Your task to perform on an android device: Open my contact list Image 0: 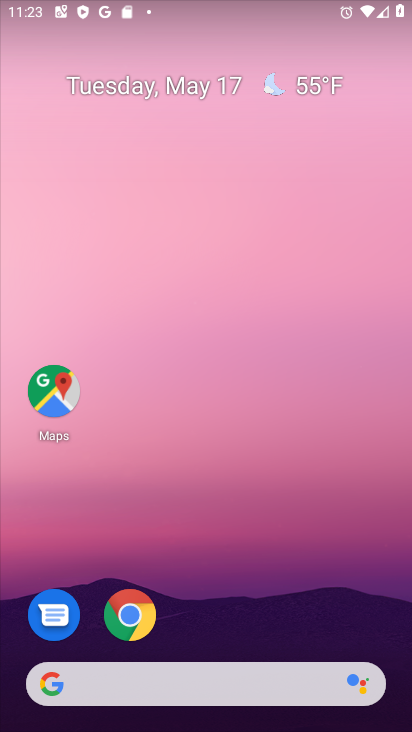
Step 0: drag from (229, 636) to (327, 72)
Your task to perform on an android device: Open my contact list Image 1: 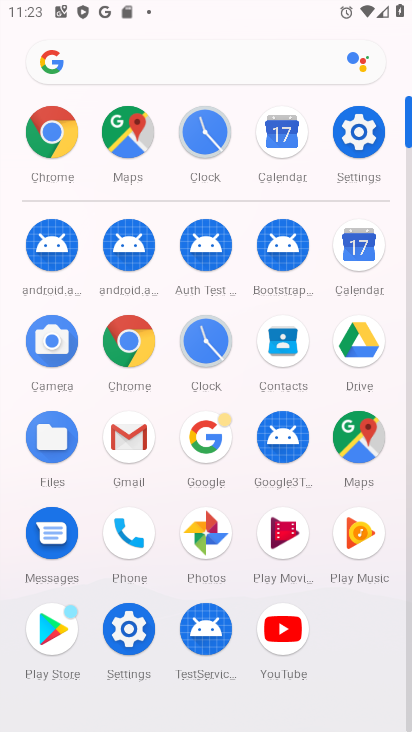
Step 1: click (284, 334)
Your task to perform on an android device: Open my contact list Image 2: 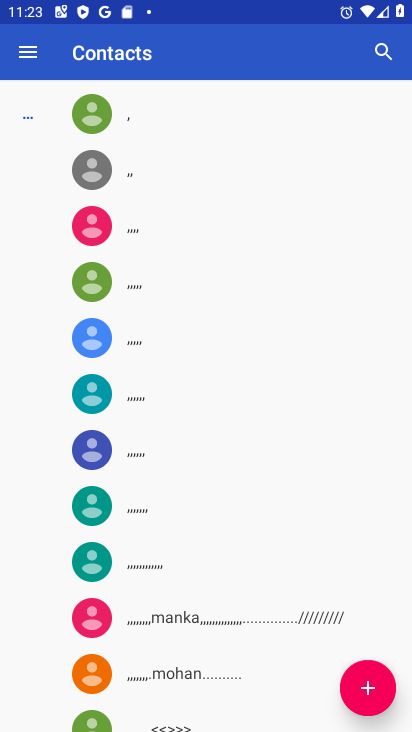
Step 2: task complete